Your task to perform on an android device: Go to Reddit.com Image 0: 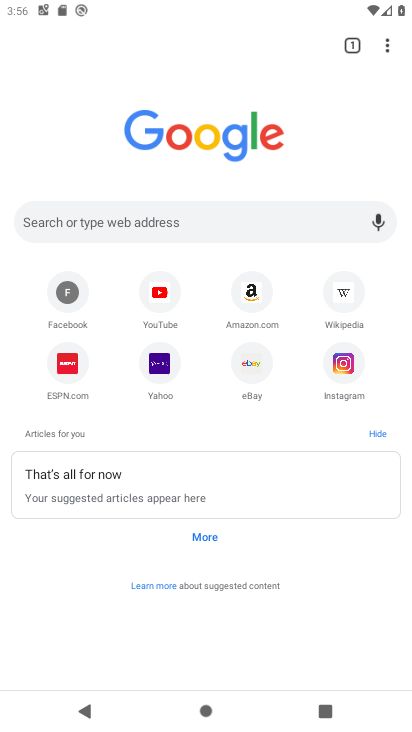
Step 0: click (176, 214)
Your task to perform on an android device: Go to Reddit.com Image 1: 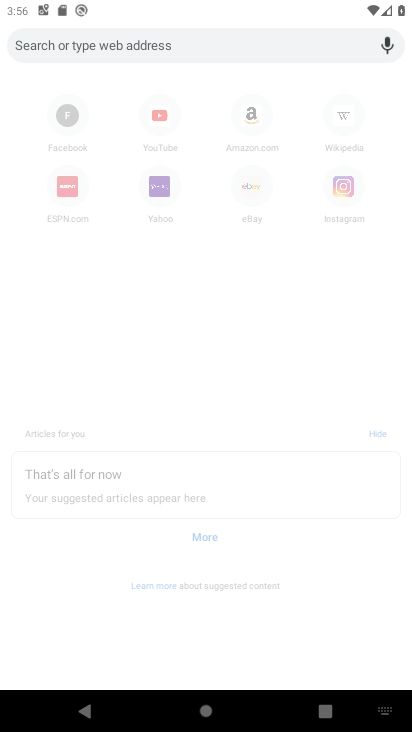
Step 1: type "reddit"
Your task to perform on an android device: Go to Reddit.com Image 2: 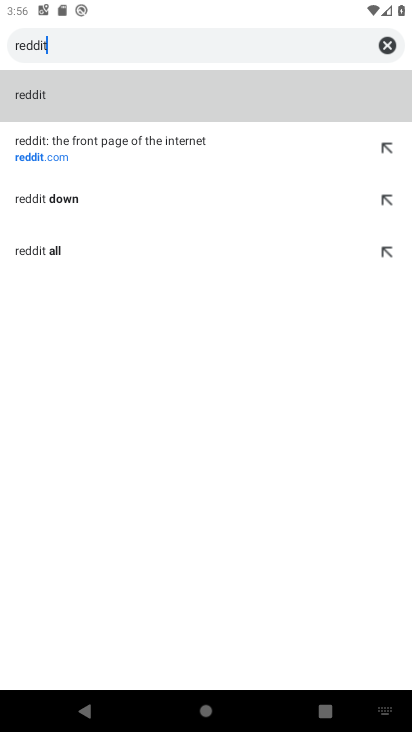
Step 2: click (113, 132)
Your task to perform on an android device: Go to Reddit.com Image 3: 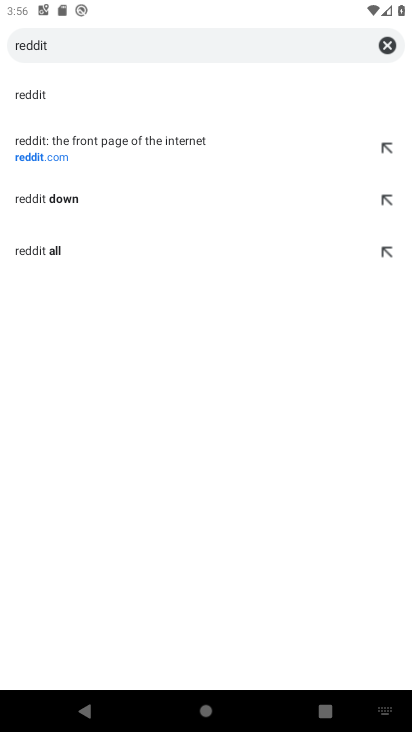
Step 3: click (105, 162)
Your task to perform on an android device: Go to Reddit.com Image 4: 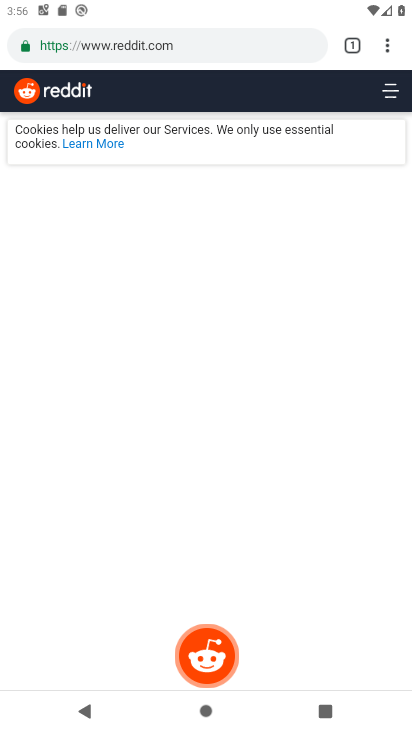
Step 4: task complete